Your task to perform on an android device: allow cookies in the chrome app Image 0: 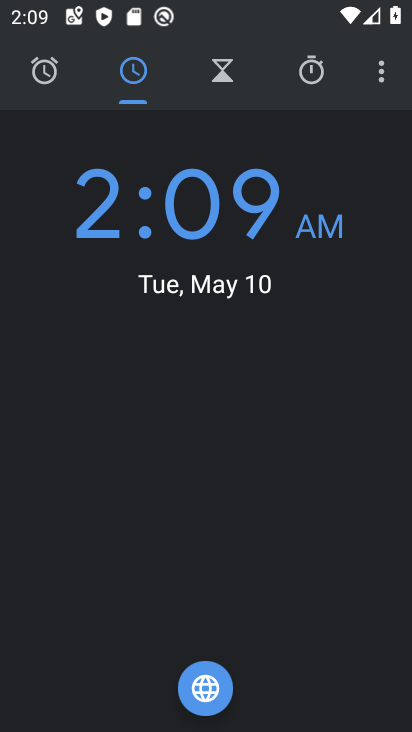
Step 0: press home button
Your task to perform on an android device: allow cookies in the chrome app Image 1: 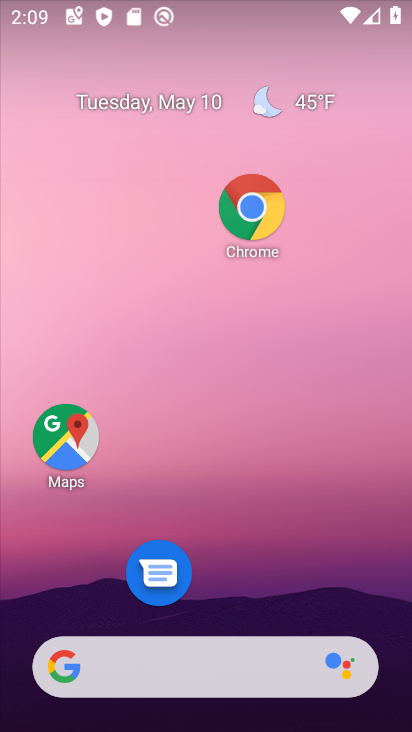
Step 1: click (268, 205)
Your task to perform on an android device: allow cookies in the chrome app Image 2: 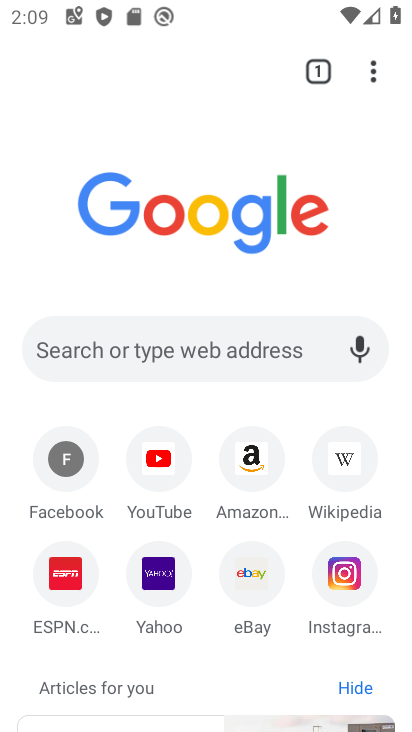
Step 2: click (377, 80)
Your task to perform on an android device: allow cookies in the chrome app Image 3: 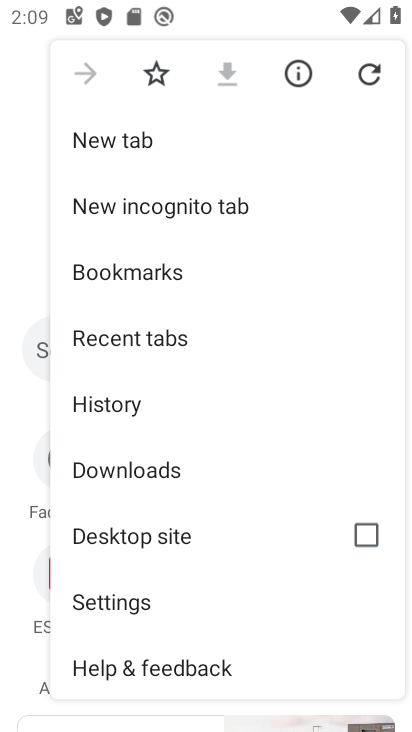
Step 3: click (141, 606)
Your task to perform on an android device: allow cookies in the chrome app Image 4: 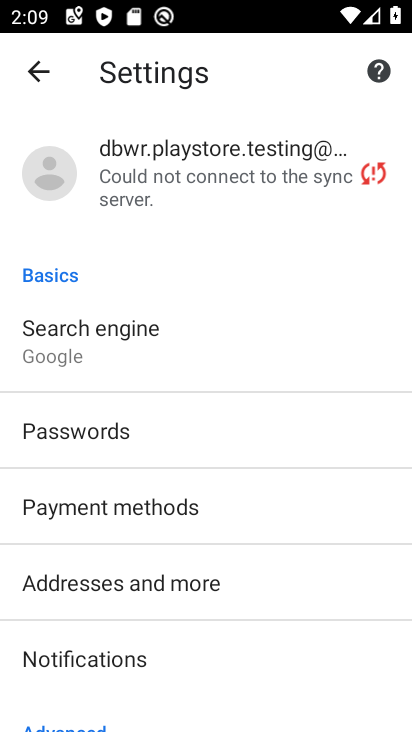
Step 4: drag from (127, 555) to (230, 176)
Your task to perform on an android device: allow cookies in the chrome app Image 5: 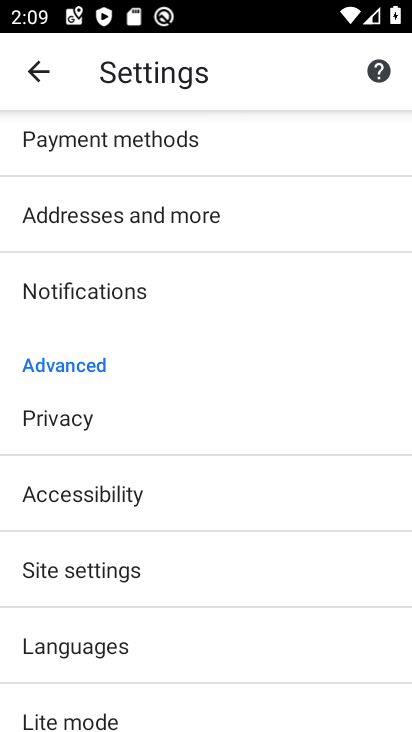
Step 5: click (70, 584)
Your task to perform on an android device: allow cookies in the chrome app Image 6: 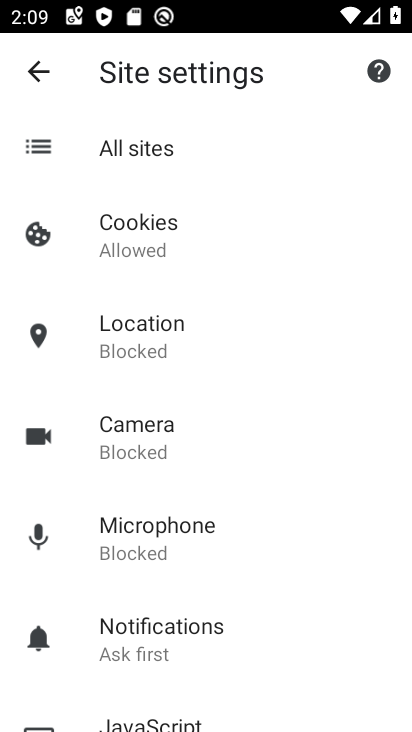
Step 6: click (163, 251)
Your task to perform on an android device: allow cookies in the chrome app Image 7: 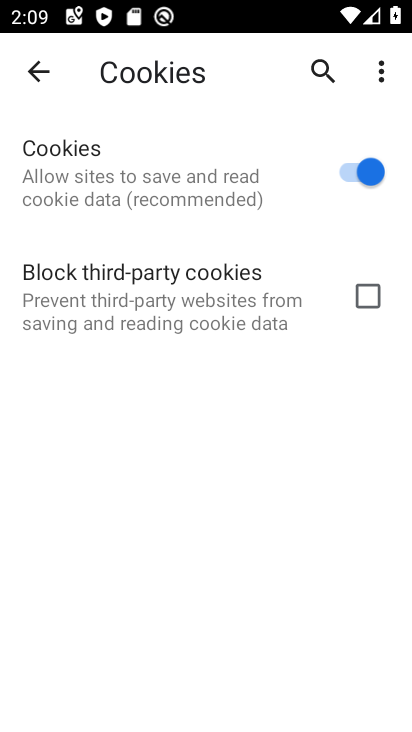
Step 7: task complete